Your task to perform on an android device: Open Youtube and go to the subscriptions tab Image 0: 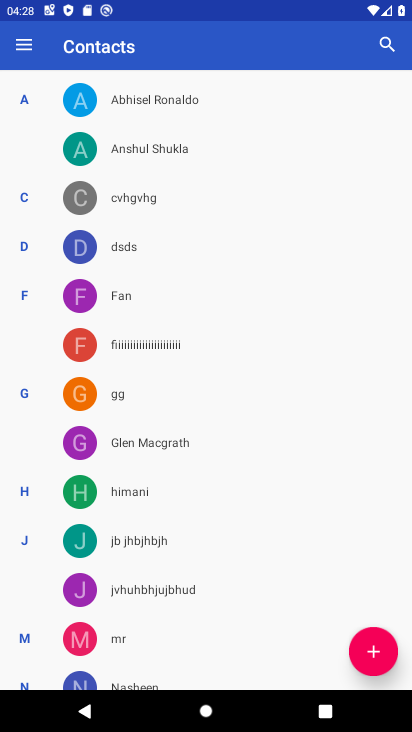
Step 0: press home button
Your task to perform on an android device: Open Youtube and go to the subscriptions tab Image 1: 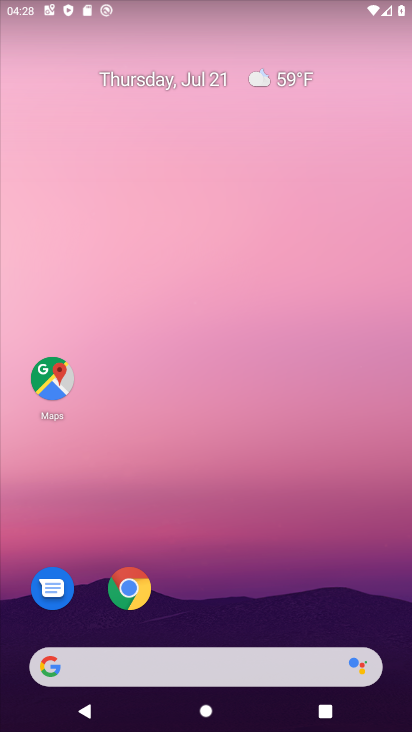
Step 1: drag from (193, 561) to (189, 171)
Your task to perform on an android device: Open Youtube and go to the subscriptions tab Image 2: 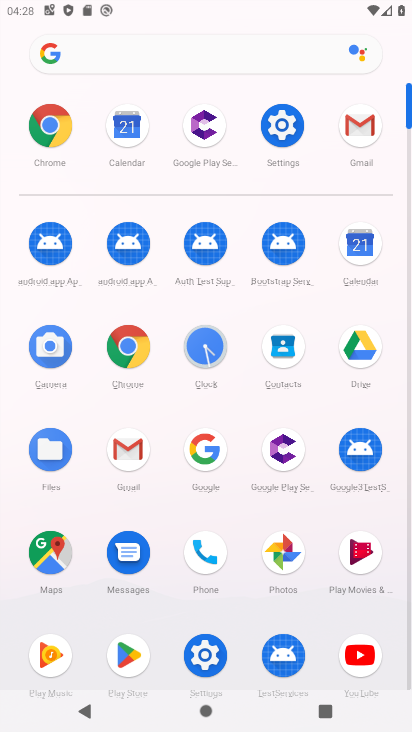
Step 2: click (349, 651)
Your task to perform on an android device: Open Youtube and go to the subscriptions tab Image 3: 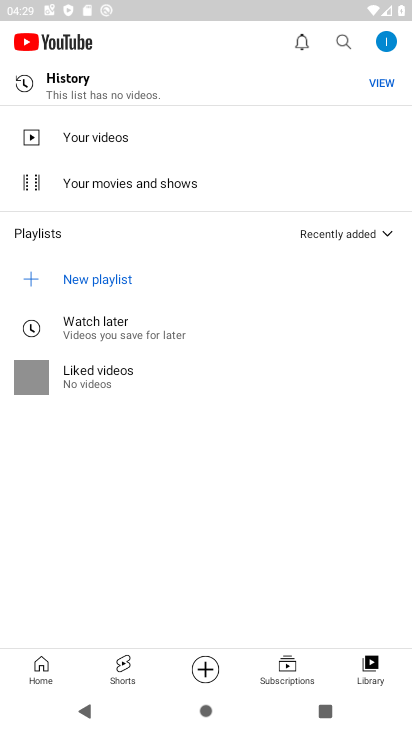
Step 3: click (276, 675)
Your task to perform on an android device: Open Youtube and go to the subscriptions tab Image 4: 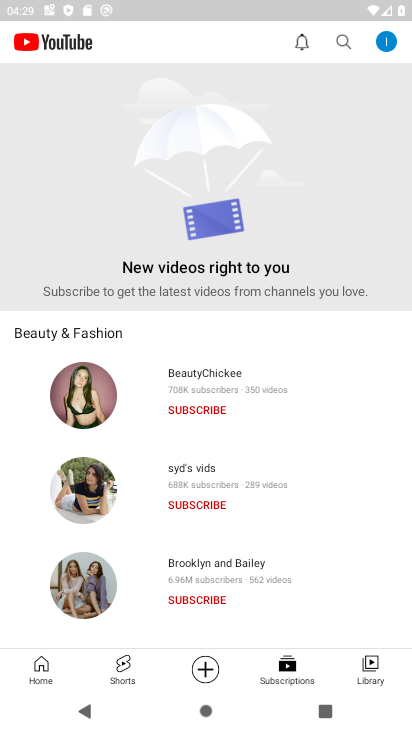
Step 4: task complete